Your task to perform on an android device: see sites visited before in the chrome app Image 0: 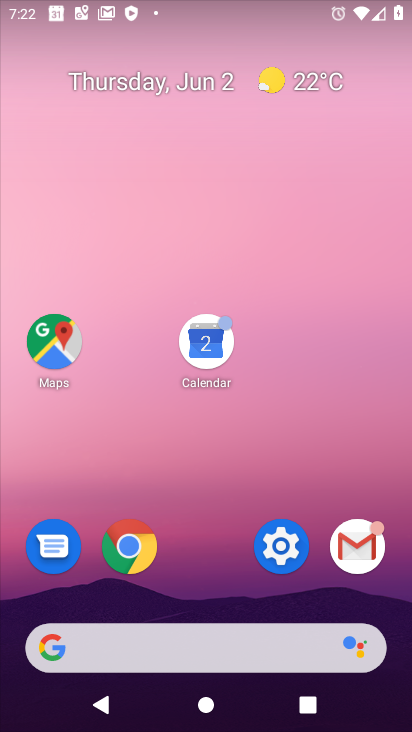
Step 0: press home button
Your task to perform on an android device: see sites visited before in the chrome app Image 1: 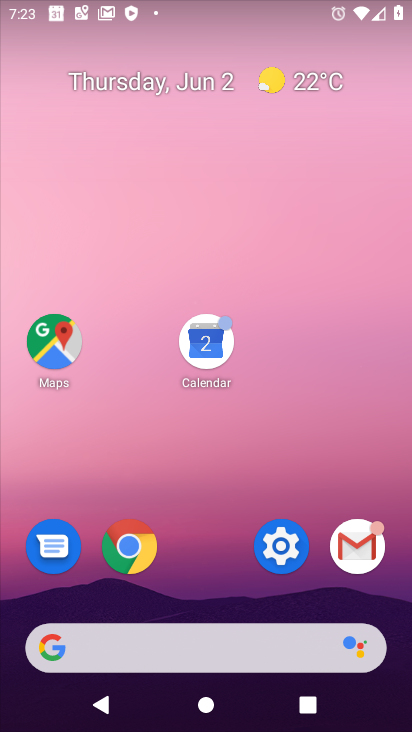
Step 1: click (128, 543)
Your task to perform on an android device: see sites visited before in the chrome app Image 2: 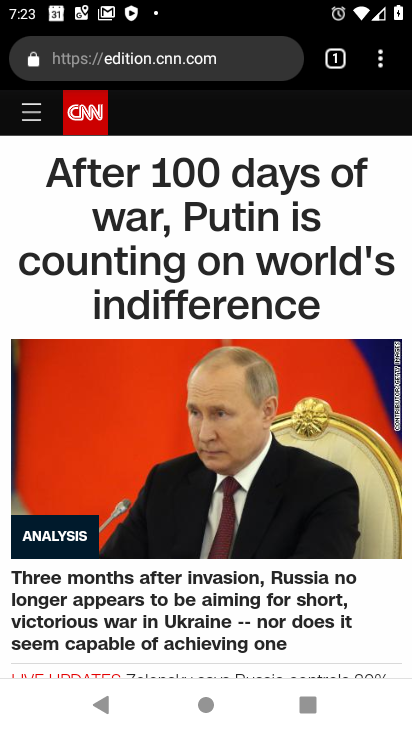
Step 2: click (378, 68)
Your task to perform on an android device: see sites visited before in the chrome app Image 3: 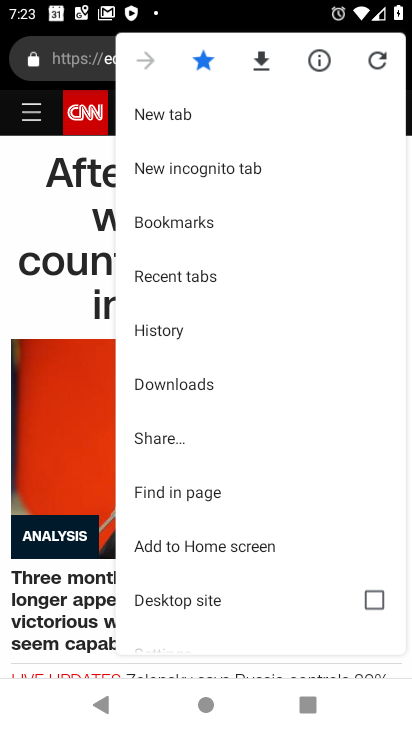
Step 3: drag from (214, 567) to (221, 308)
Your task to perform on an android device: see sites visited before in the chrome app Image 4: 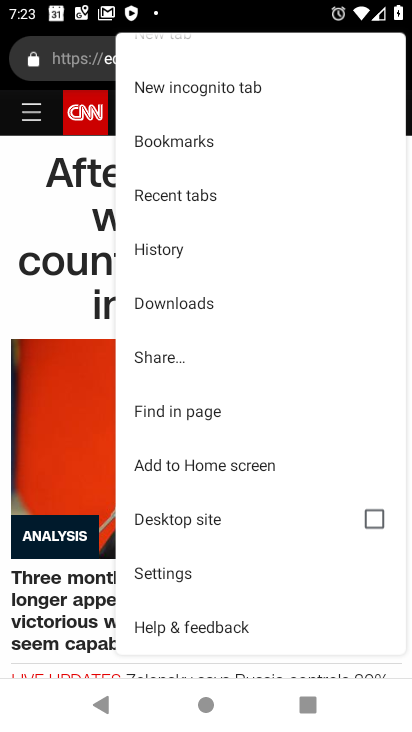
Step 4: click (179, 576)
Your task to perform on an android device: see sites visited before in the chrome app Image 5: 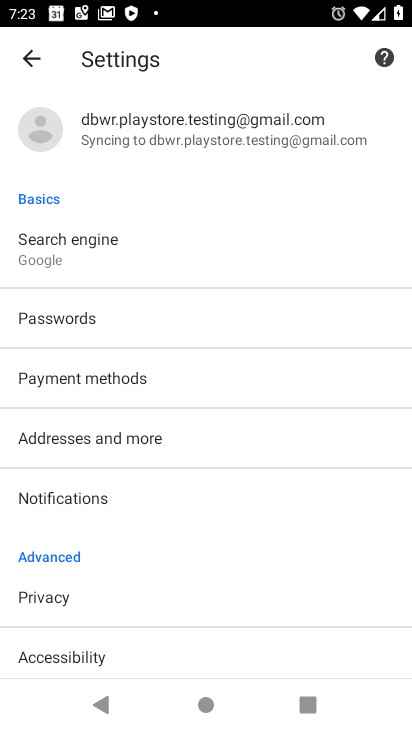
Step 5: drag from (182, 604) to (212, 336)
Your task to perform on an android device: see sites visited before in the chrome app Image 6: 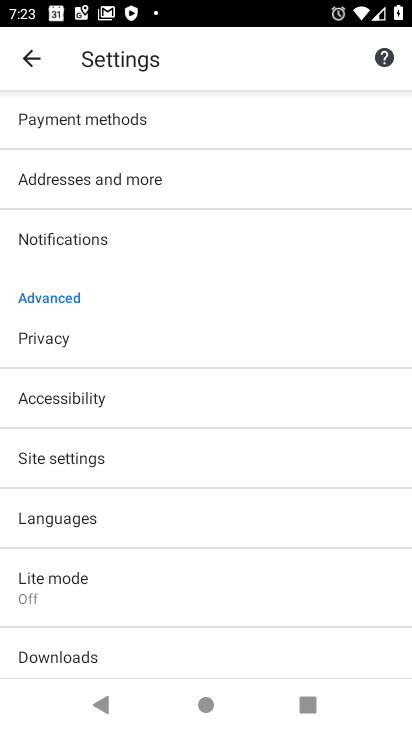
Step 6: click (80, 455)
Your task to perform on an android device: see sites visited before in the chrome app Image 7: 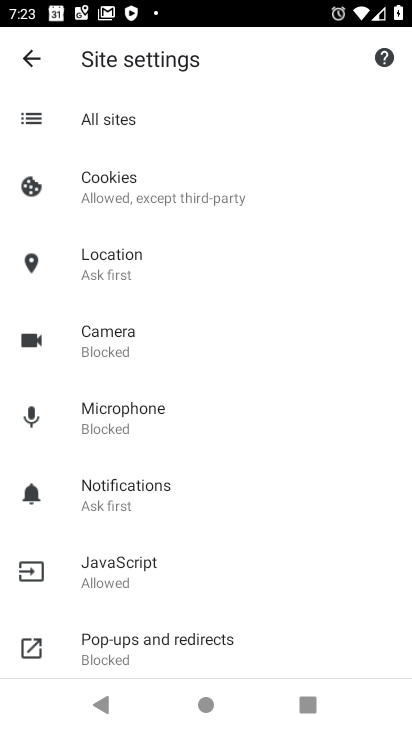
Step 7: click (133, 128)
Your task to perform on an android device: see sites visited before in the chrome app Image 8: 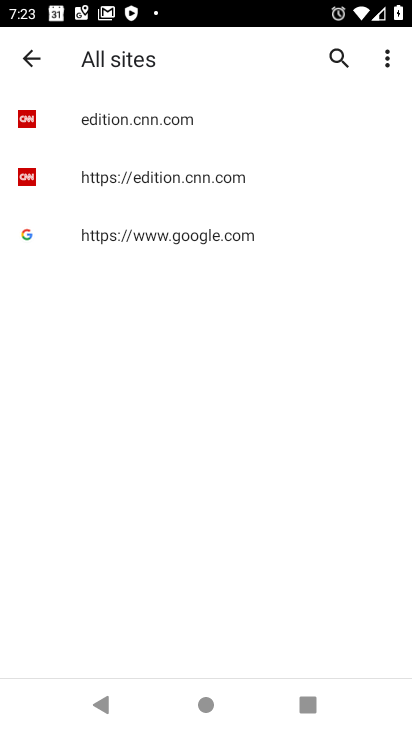
Step 8: task complete